Your task to perform on an android device: Go to Maps Image 0: 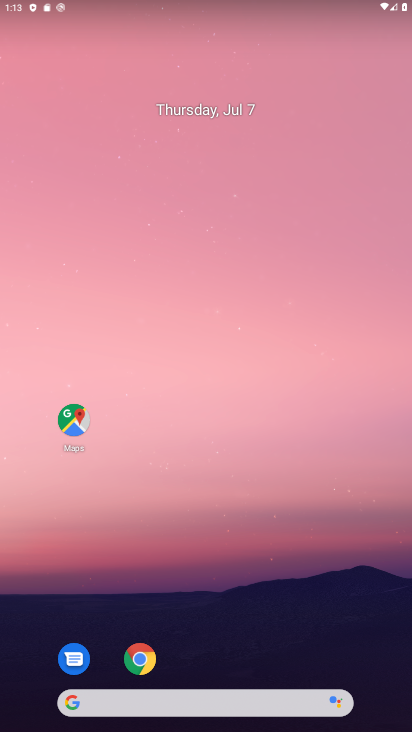
Step 0: drag from (235, 664) to (231, 27)
Your task to perform on an android device: Go to Maps Image 1: 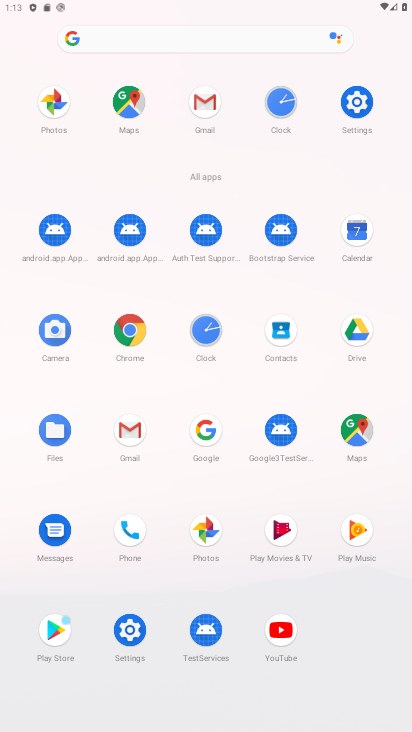
Step 1: press home button
Your task to perform on an android device: Go to Maps Image 2: 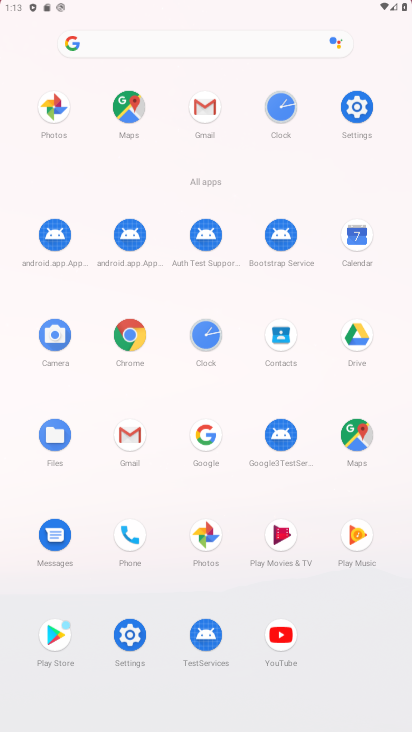
Step 2: press home button
Your task to perform on an android device: Go to Maps Image 3: 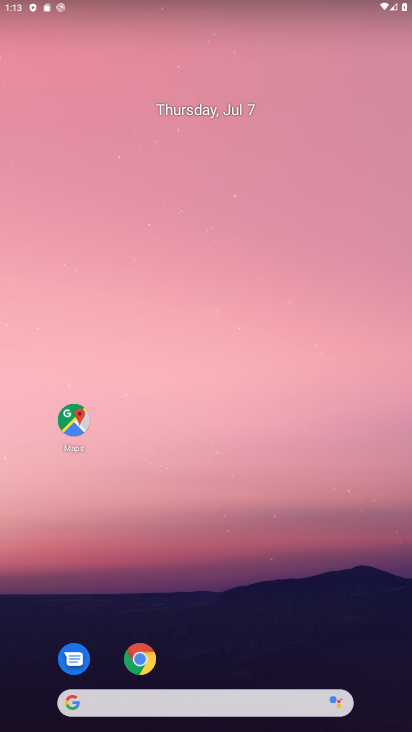
Step 3: drag from (221, 680) to (222, 40)
Your task to perform on an android device: Go to Maps Image 4: 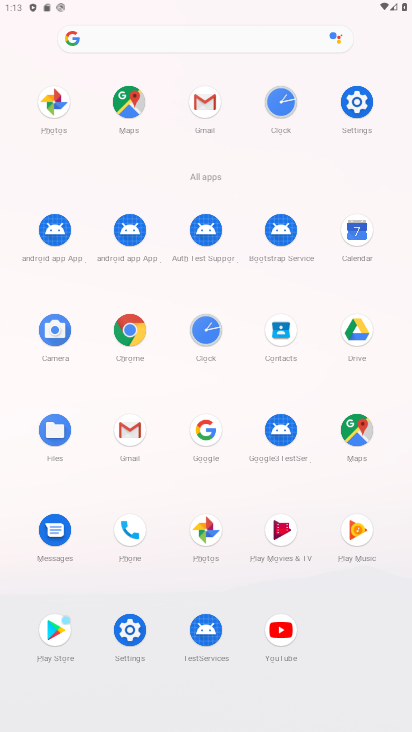
Step 4: click (348, 428)
Your task to perform on an android device: Go to Maps Image 5: 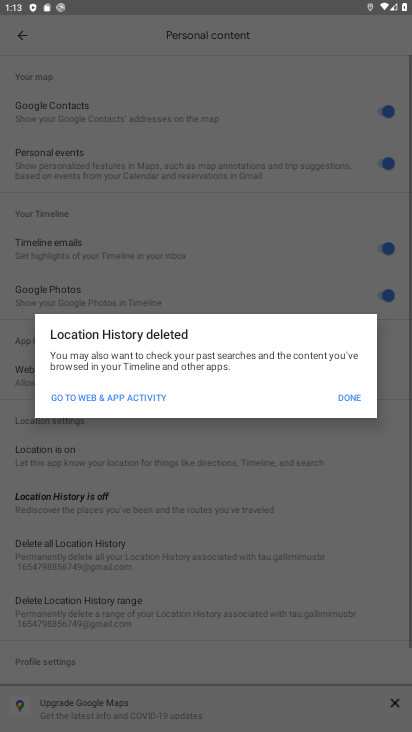
Step 5: click (345, 398)
Your task to perform on an android device: Go to Maps Image 6: 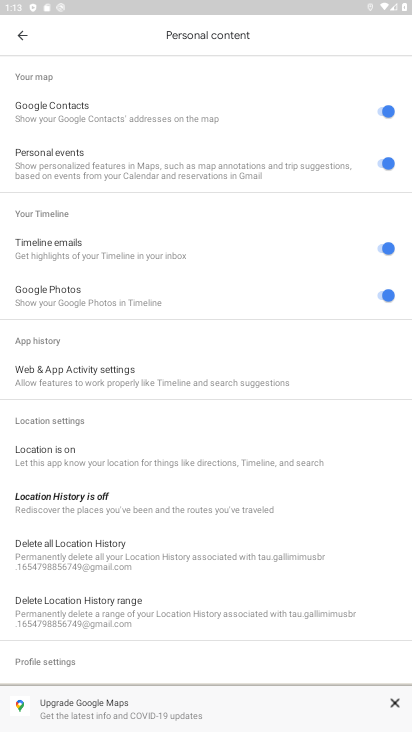
Step 6: click (22, 35)
Your task to perform on an android device: Go to Maps Image 7: 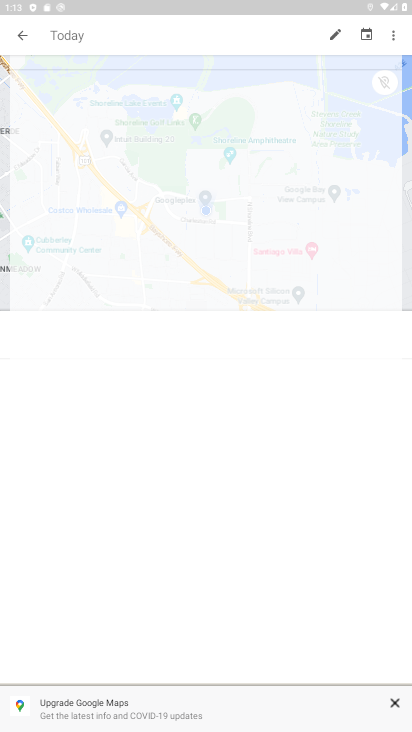
Step 7: click (22, 42)
Your task to perform on an android device: Go to Maps Image 8: 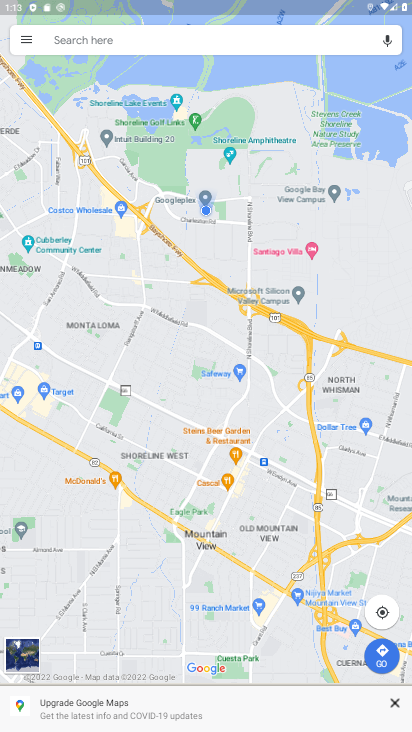
Step 8: click (105, 35)
Your task to perform on an android device: Go to Maps Image 9: 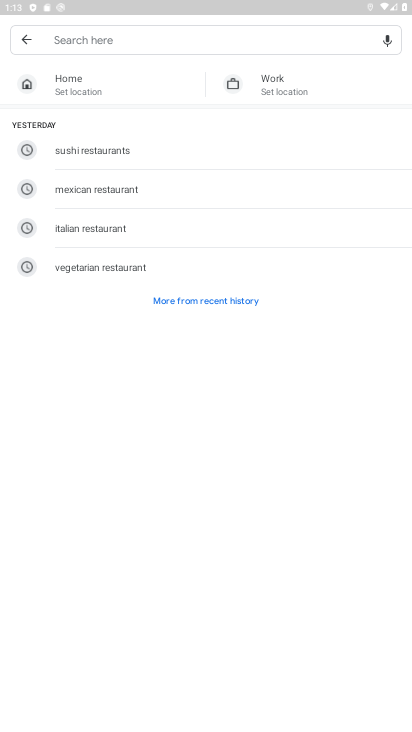
Step 9: click (25, 33)
Your task to perform on an android device: Go to Maps Image 10: 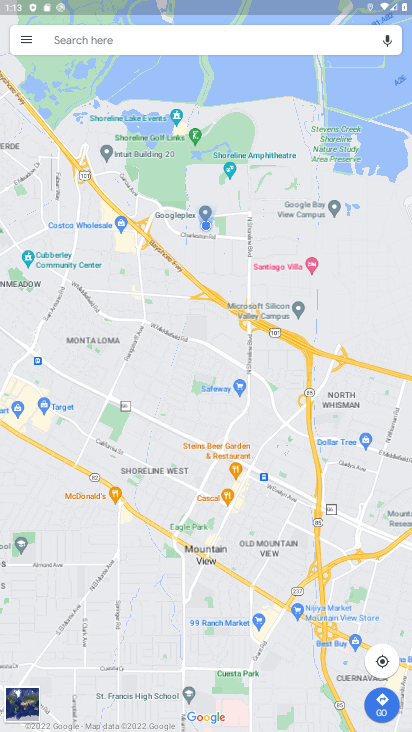
Step 10: click (20, 38)
Your task to perform on an android device: Go to Maps Image 11: 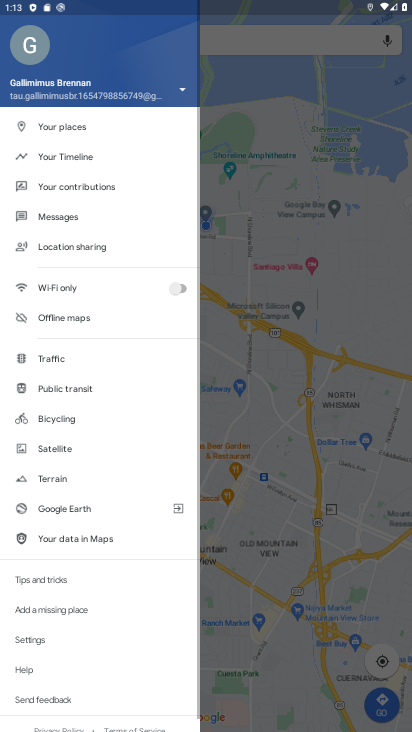
Step 11: task complete